Your task to perform on an android device: turn pop-ups off in chrome Image 0: 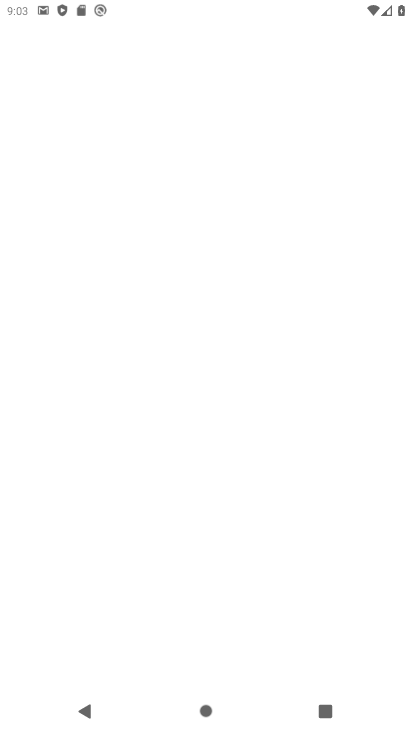
Step 0: press back button
Your task to perform on an android device: turn pop-ups off in chrome Image 1: 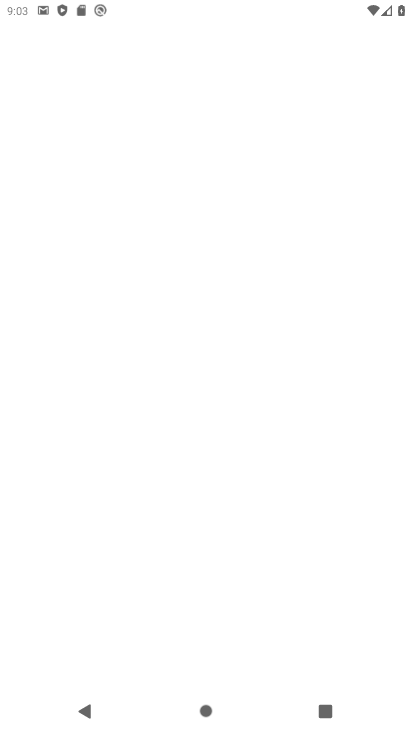
Step 1: press back button
Your task to perform on an android device: turn pop-ups off in chrome Image 2: 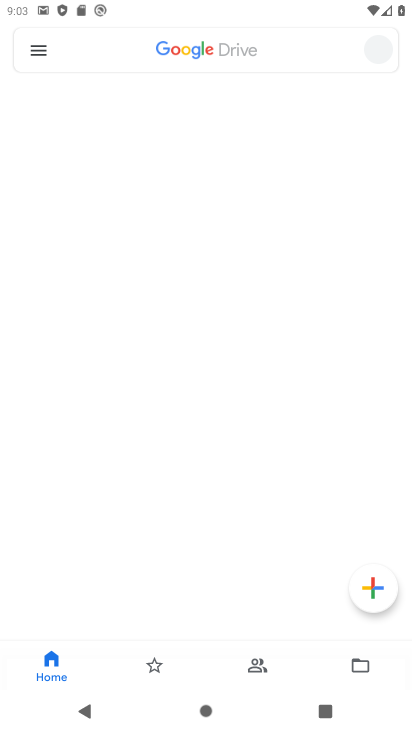
Step 2: press back button
Your task to perform on an android device: turn pop-ups off in chrome Image 3: 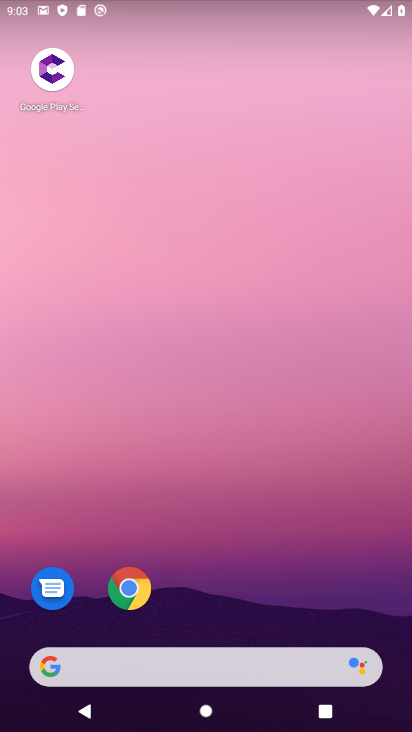
Step 3: click (123, 593)
Your task to perform on an android device: turn pop-ups off in chrome Image 4: 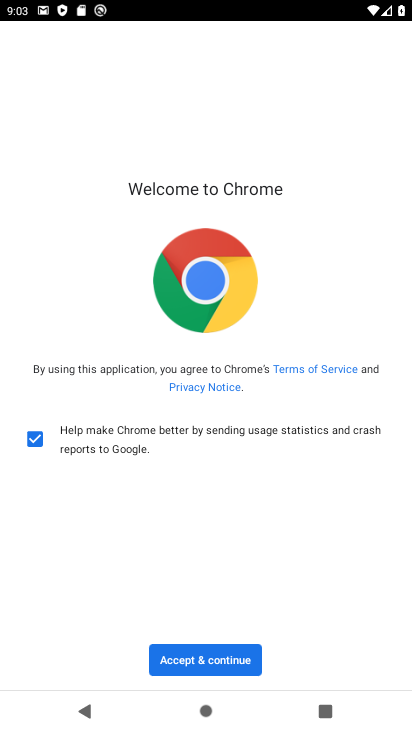
Step 4: click (188, 649)
Your task to perform on an android device: turn pop-ups off in chrome Image 5: 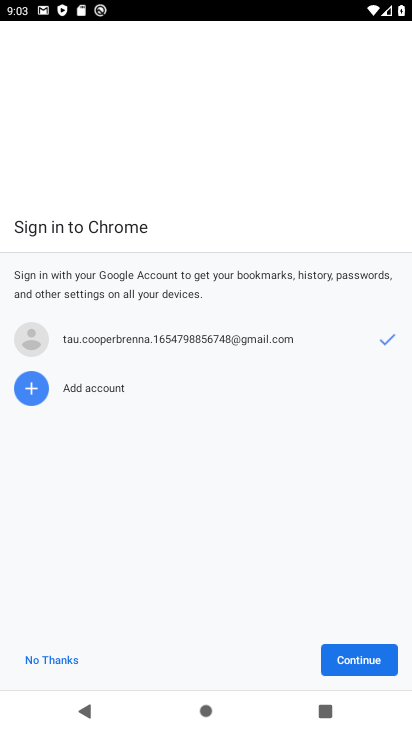
Step 5: click (371, 640)
Your task to perform on an android device: turn pop-ups off in chrome Image 6: 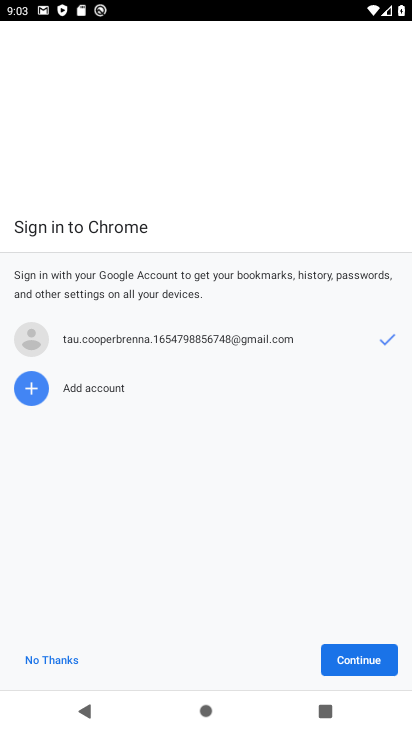
Step 6: click (370, 660)
Your task to perform on an android device: turn pop-ups off in chrome Image 7: 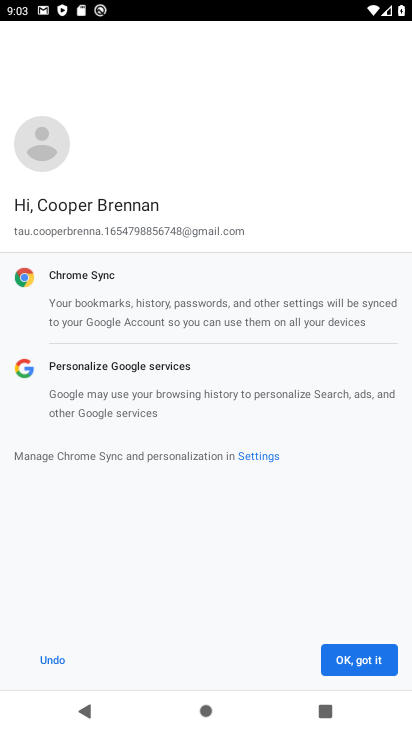
Step 7: click (363, 657)
Your task to perform on an android device: turn pop-ups off in chrome Image 8: 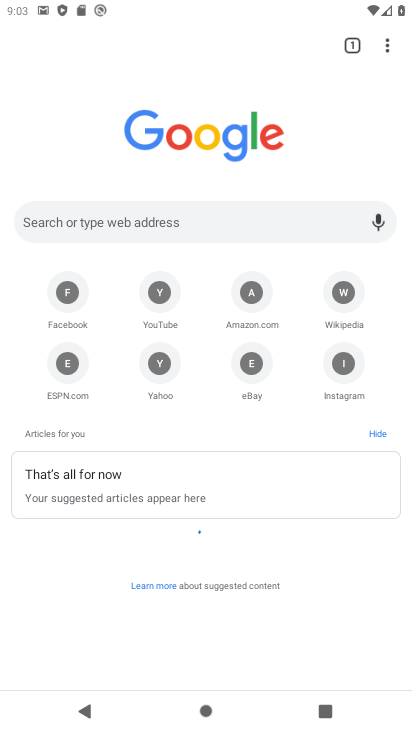
Step 8: drag from (389, 42) to (224, 385)
Your task to perform on an android device: turn pop-ups off in chrome Image 9: 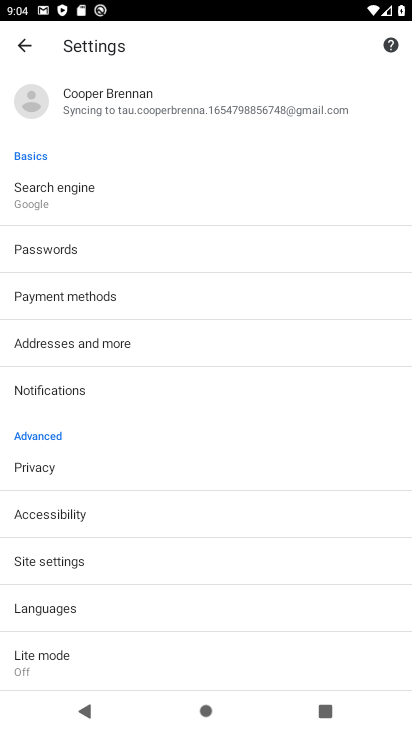
Step 9: click (32, 572)
Your task to perform on an android device: turn pop-ups off in chrome Image 10: 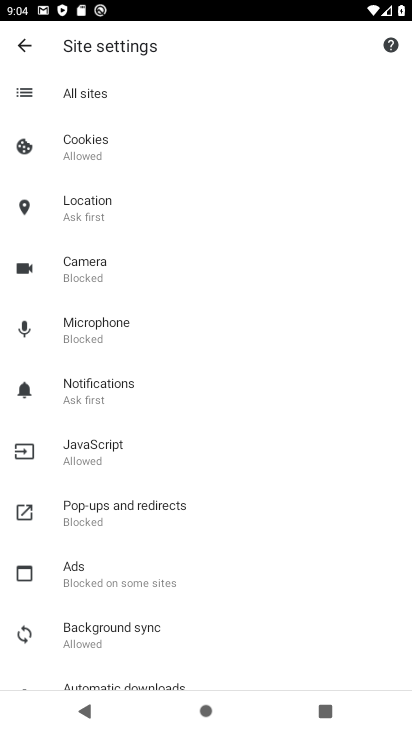
Step 10: click (145, 506)
Your task to perform on an android device: turn pop-ups off in chrome Image 11: 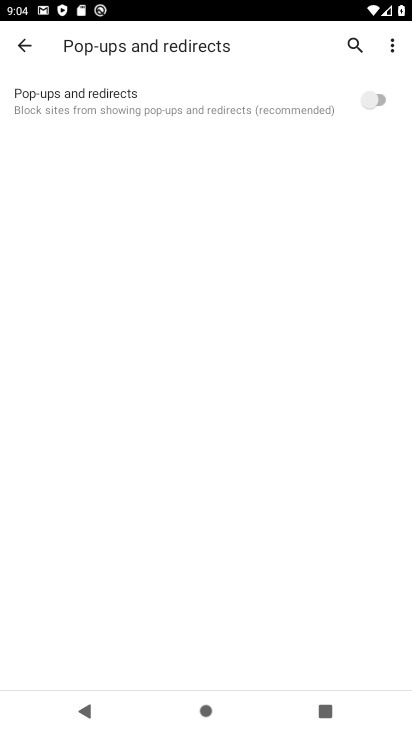
Step 11: task complete